Your task to perform on an android device: allow notifications from all sites in the chrome app Image 0: 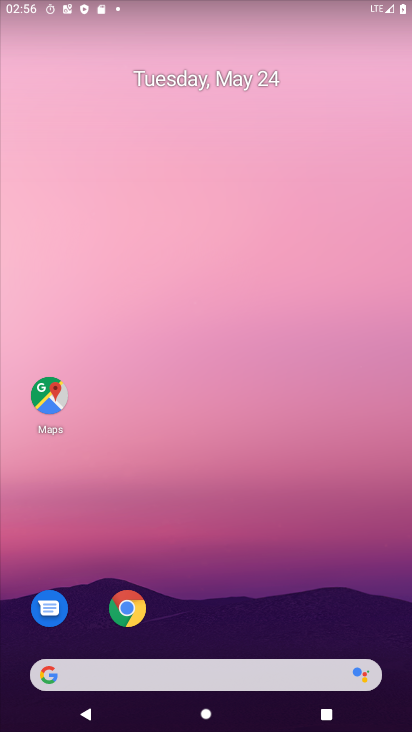
Step 0: drag from (248, 631) to (179, 220)
Your task to perform on an android device: allow notifications from all sites in the chrome app Image 1: 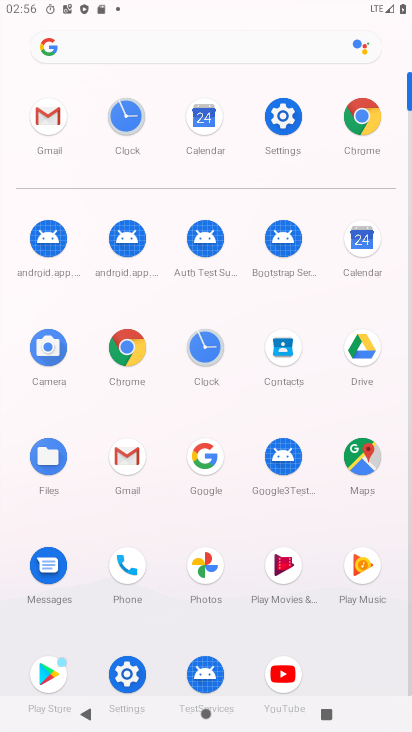
Step 1: click (361, 127)
Your task to perform on an android device: allow notifications from all sites in the chrome app Image 2: 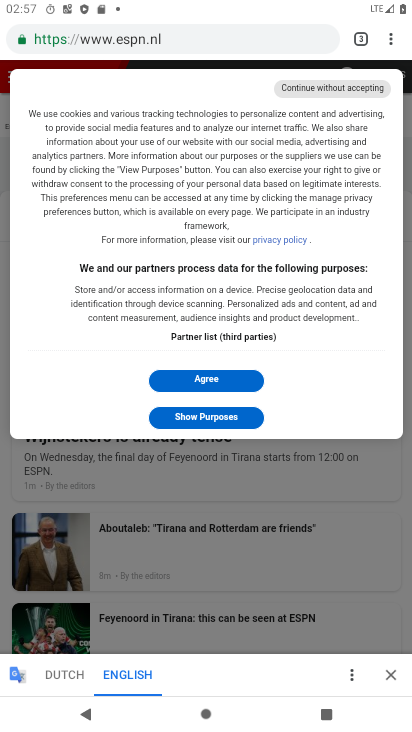
Step 2: click (388, 47)
Your task to perform on an android device: allow notifications from all sites in the chrome app Image 3: 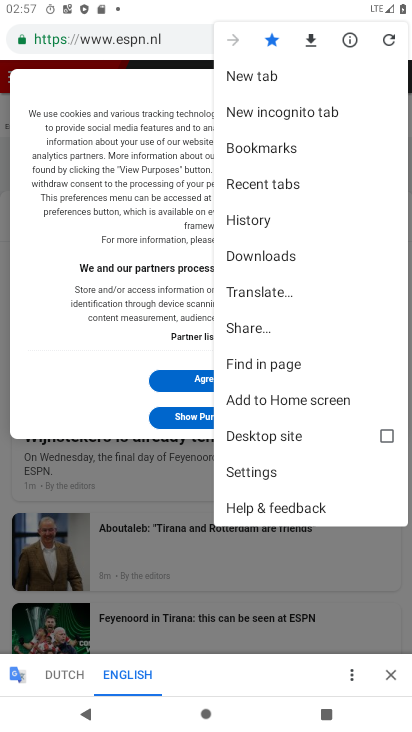
Step 3: click (278, 476)
Your task to perform on an android device: allow notifications from all sites in the chrome app Image 4: 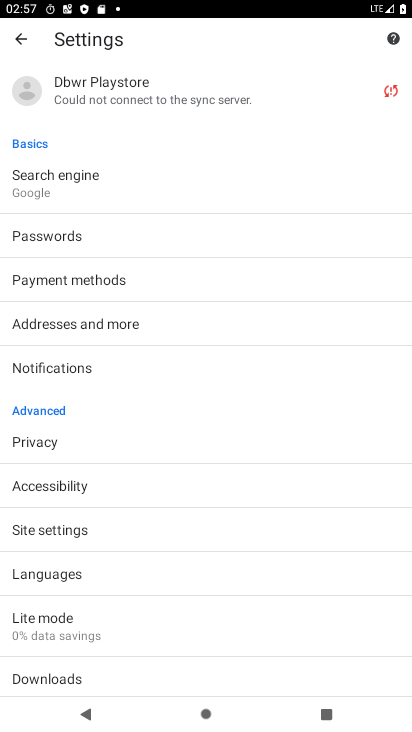
Step 4: click (194, 534)
Your task to perform on an android device: allow notifications from all sites in the chrome app Image 5: 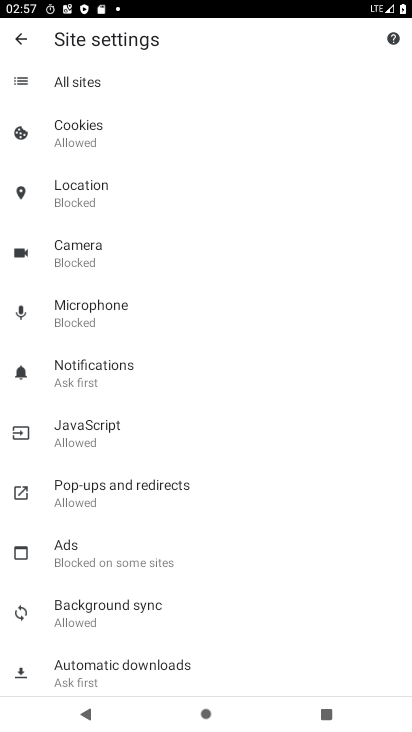
Step 5: click (165, 372)
Your task to perform on an android device: allow notifications from all sites in the chrome app Image 6: 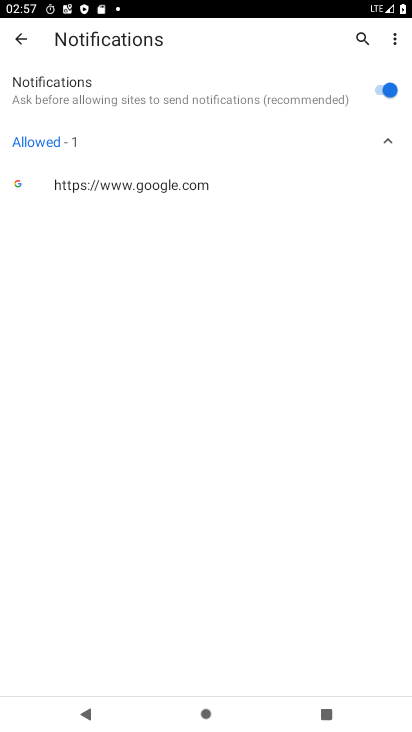
Step 6: task complete